Your task to perform on an android device: Turn on the flashlight Image 0: 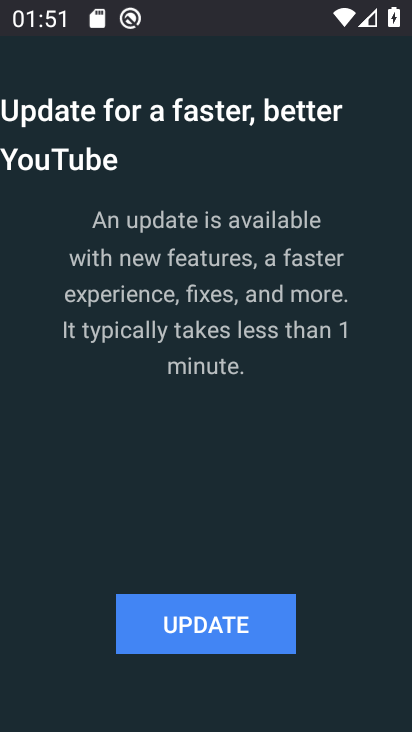
Step 0: press home button
Your task to perform on an android device: Turn on the flashlight Image 1: 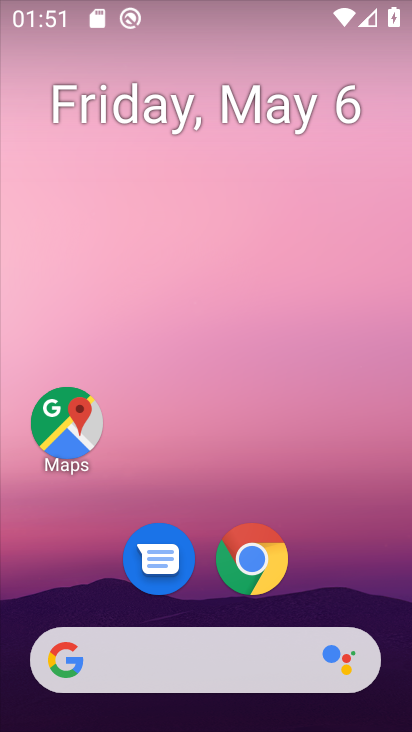
Step 1: task complete